Your task to perform on an android device: turn on notifications settings in the gmail app Image 0: 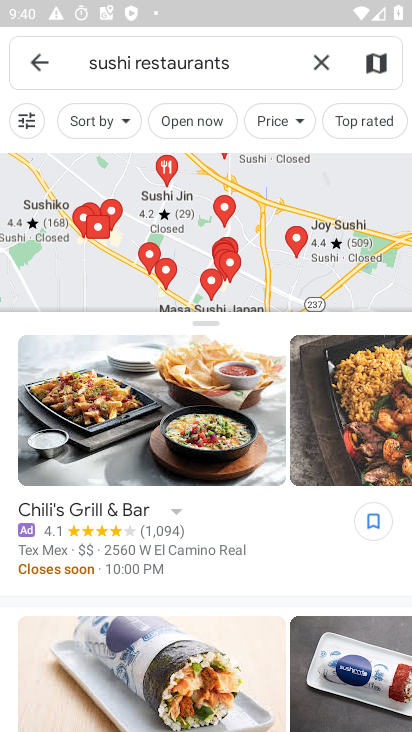
Step 0: press home button
Your task to perform on an android device: turn on notifications settings in the gmail app Image 1: 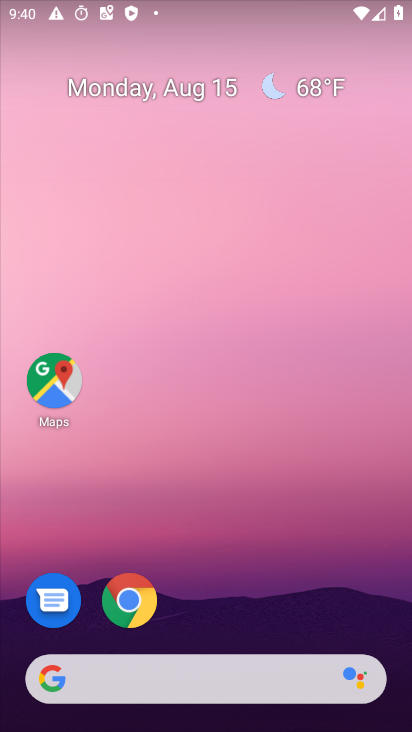
Step 1: click (235, 169)
Your task to perform on an android device: turn on notifications settings in the gmail app Image 2: 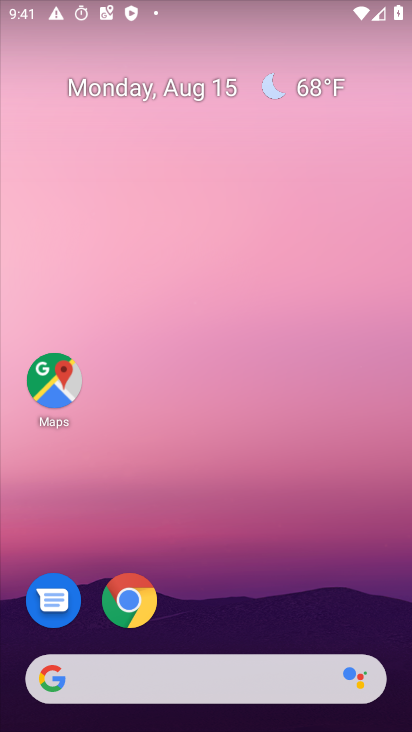
Step 2: drag from (224, 644) to (224, 55)
Your task to perform on an android device: turn on notifications settings in the gmail app Image 3: 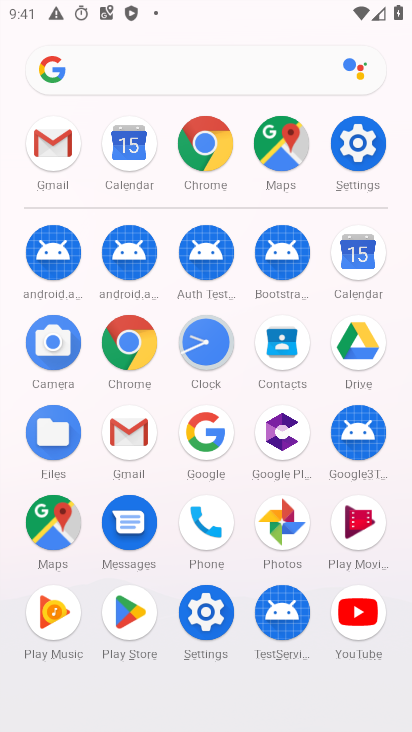
Step 3: click (125, 432)
Your task to perform on an android device: turn on notifications settings in the gmail app Image 4: 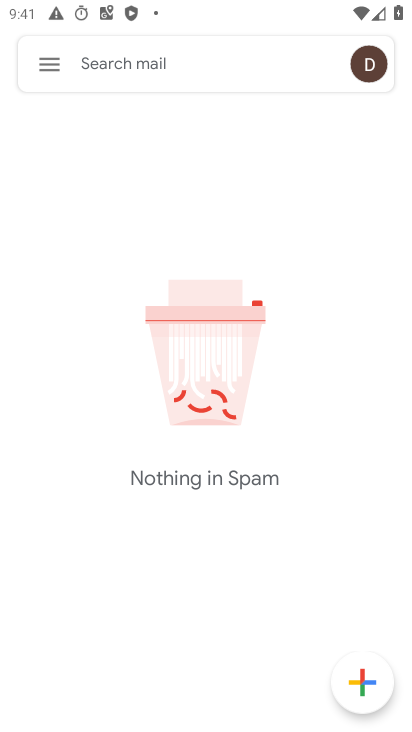
Step 4: click (45, 59)
Your task to perform on an android device: turn on notifications settings in the gmail app Image 5: 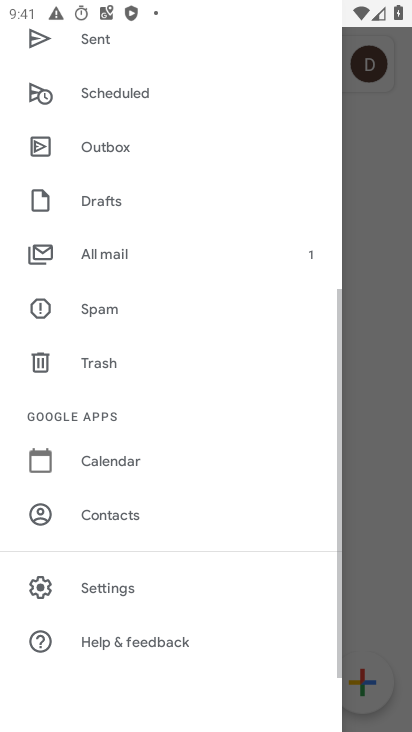
Step 5: click (101, 584)
Your task to perform on an android device: turn on notifications settings in the gmail app Image 6: 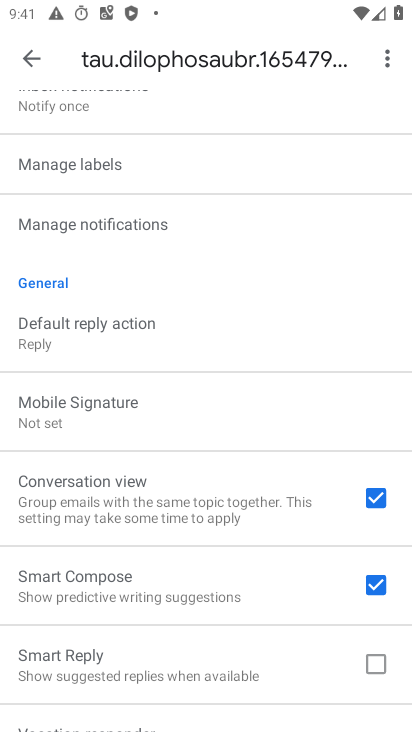
Step 6: drag from (177, 227) to (153, 596)
Your task to perform on an android device: turn on notifications settings in the gmail app Image 7: 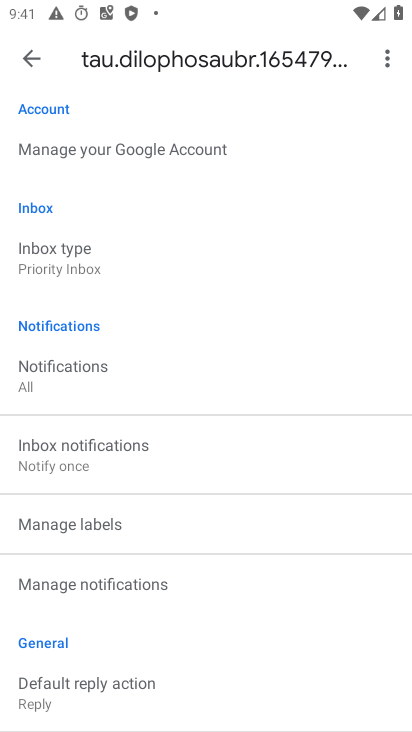
Step 7: drag from (93, 185) to (84, 414)
Your task to perform on an android device: turn on notifications settings in the gmail app Image 8: 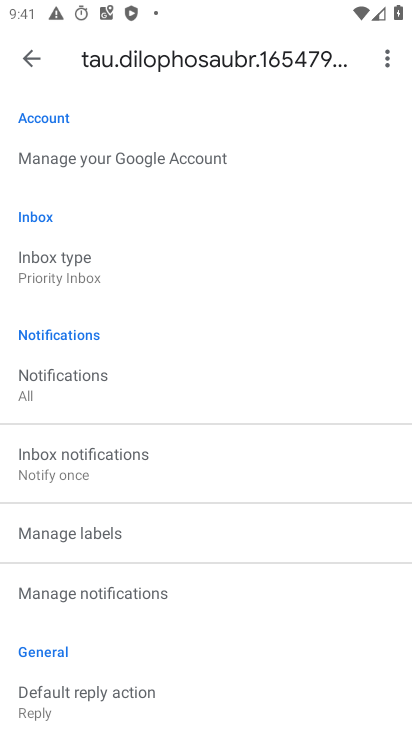
Step 8: click (52, 401)
Your task to perform on an android device: turn on notifications settings in the gmail app Image 9: 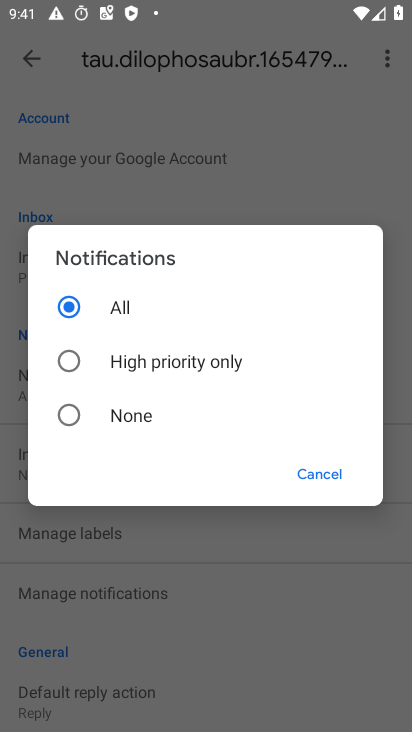
Step 9: task complete